Your task to perform on an android device: Clear all items from cart on bestbuy. Search for beats solo 3 on bestbuy, select the first entry, and add it to the cart. Image 0: 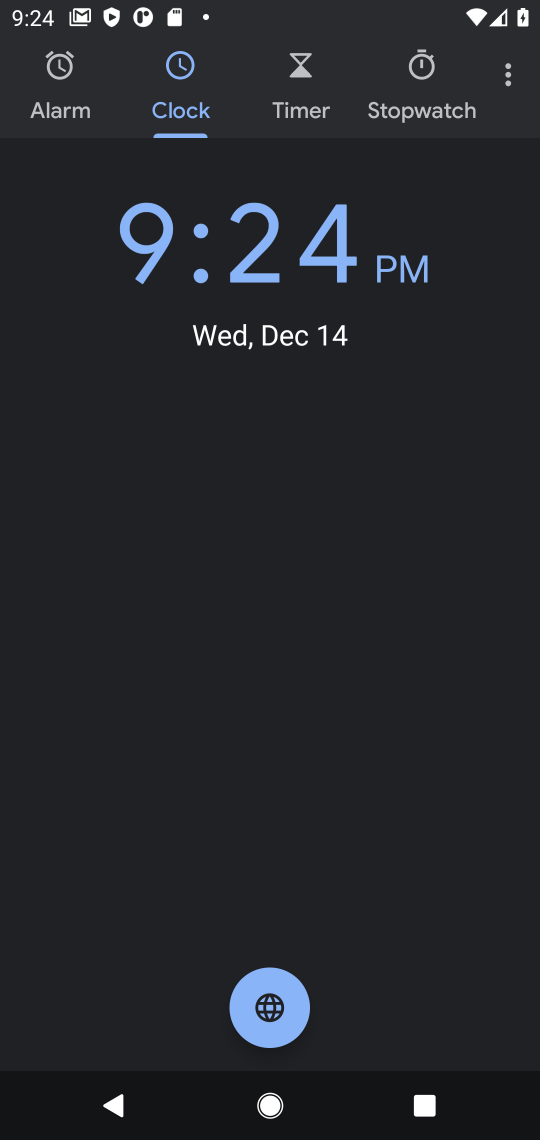
Step 0: press home button
Your task to perform on an android device: Clear all items from cart on bestbuy. Search for beats solo 3 on bestbuy, select the first entry, and add it to the cart. Image 1: 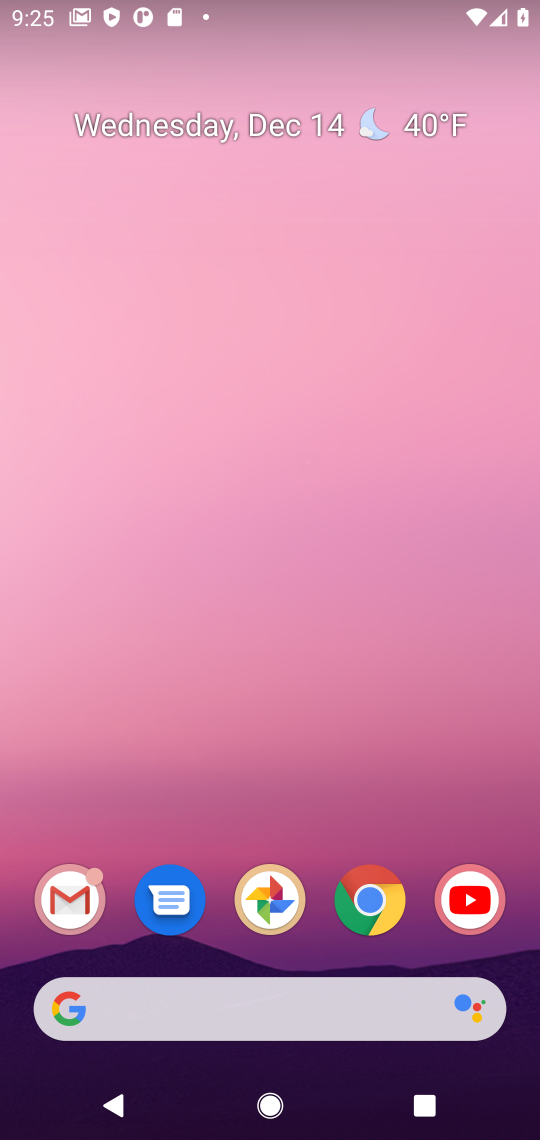
Step 1: click (371, 905)
Your task to perform on an android device: Clear all items from cart on bestbuy. Search for beats solo 3 on bestbuy, select the first entry, and add it to the cart. Image 2: 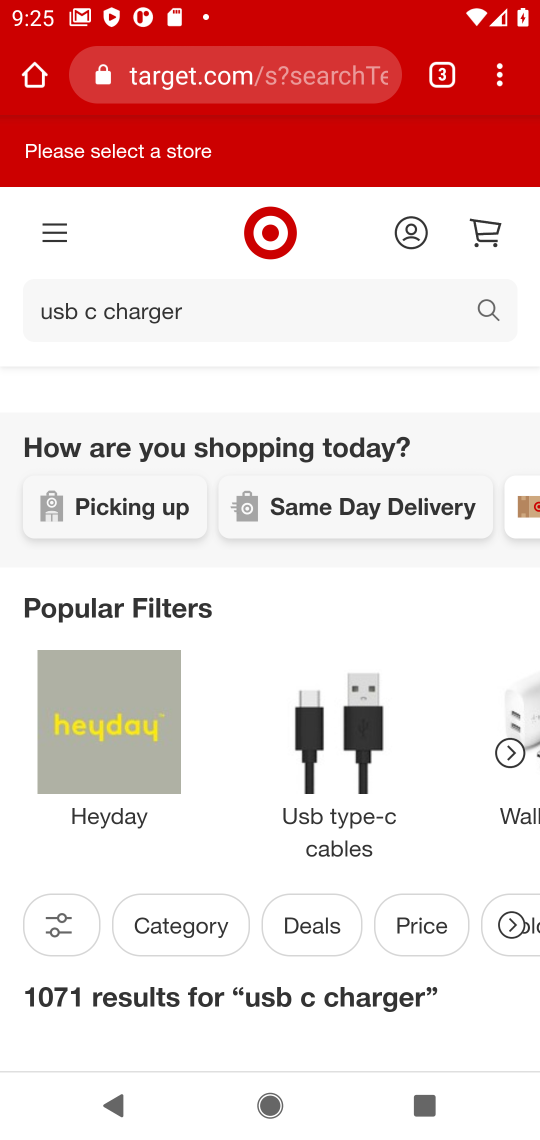
Step 2: click (177, 75)
Your task to perform on an android device: Clear all items from cart on bestbuy. Search for beats solo 3 on bestbuy, select the first entry, and add it to the cart. Image 3: 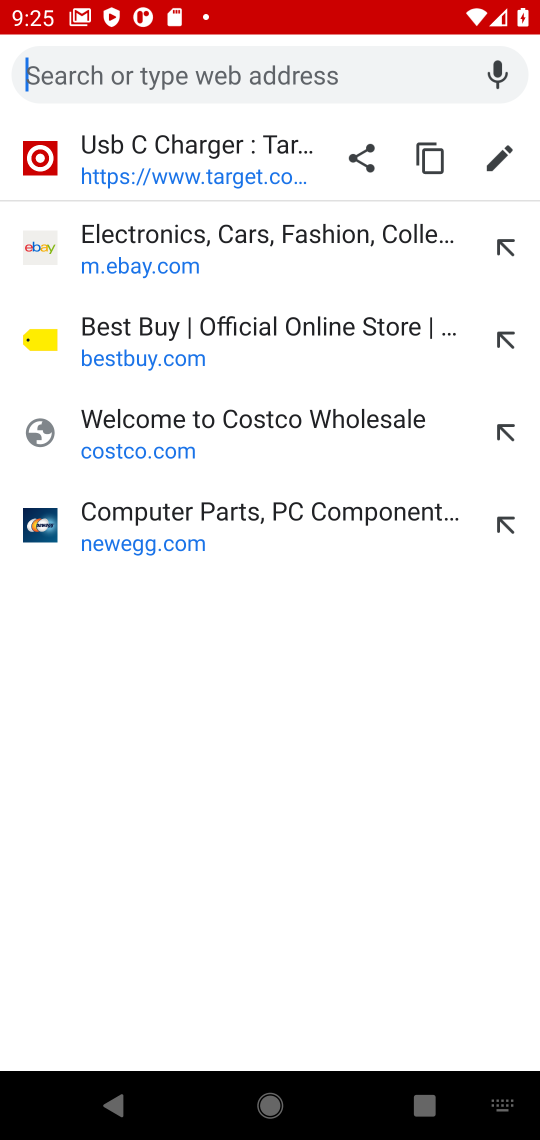
Step 3: click (139, 345)
Your task to perform on an android device: Clear all items from cart on bestbuy. Search for beats solo 3 on bestbuy, select the first entry, and add it to the cart. Image 4: 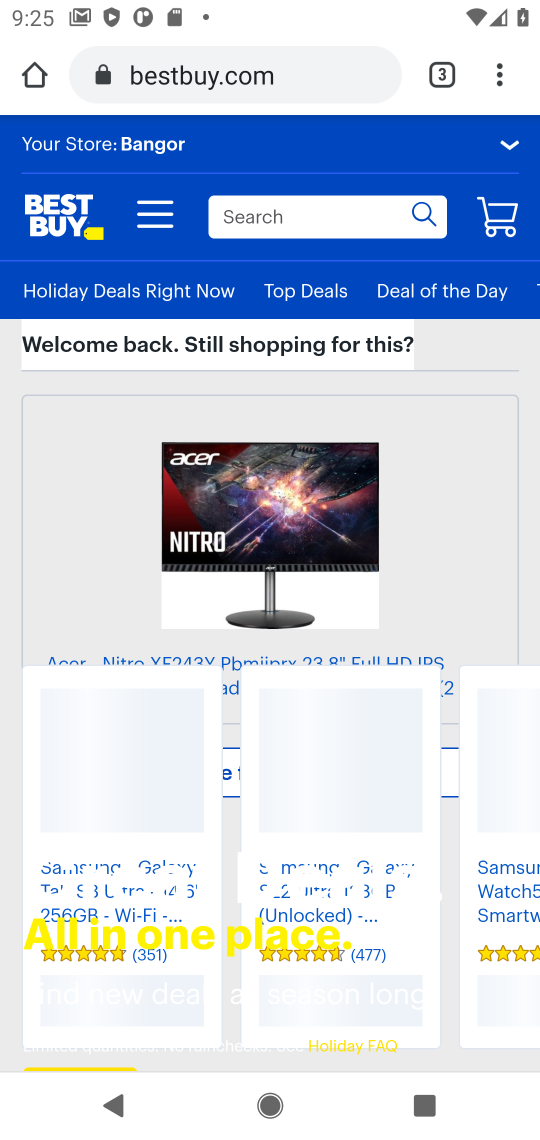
Step 4: click (504, 226)
Your task to perform on an android device: Clear all items from cart on bestbuy. Search for beats solo 3 on bestbuy, select the first entry, and add it to the cart. Image 5: 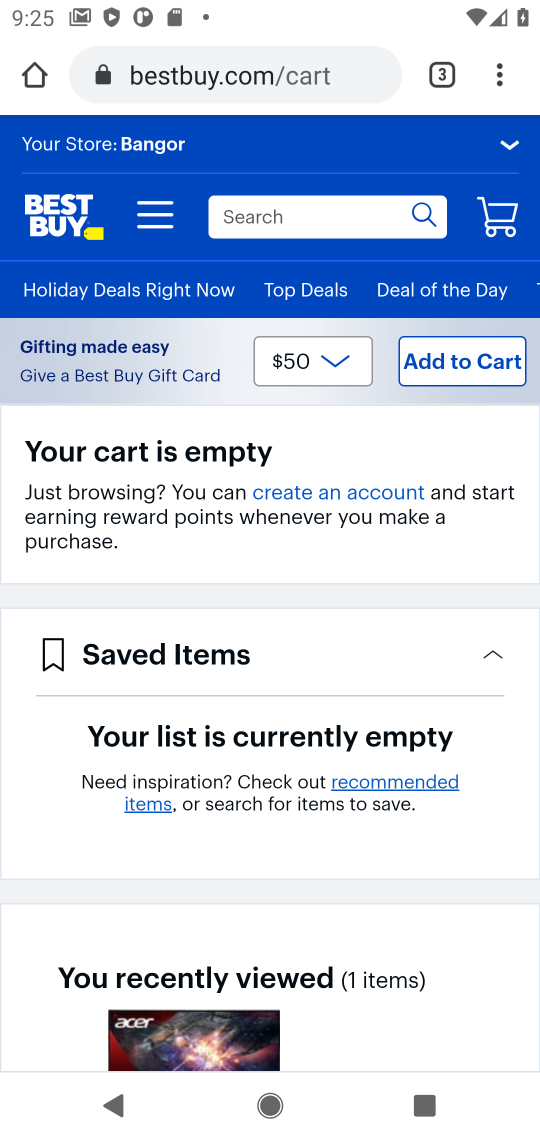
Step 5: click (278, 223)
Your task to perform on an android device: Clear all items from cart on bestbuy. Search for beats solo 3 on bestbuy, select the first entry, and add it to the cart. Image 6: 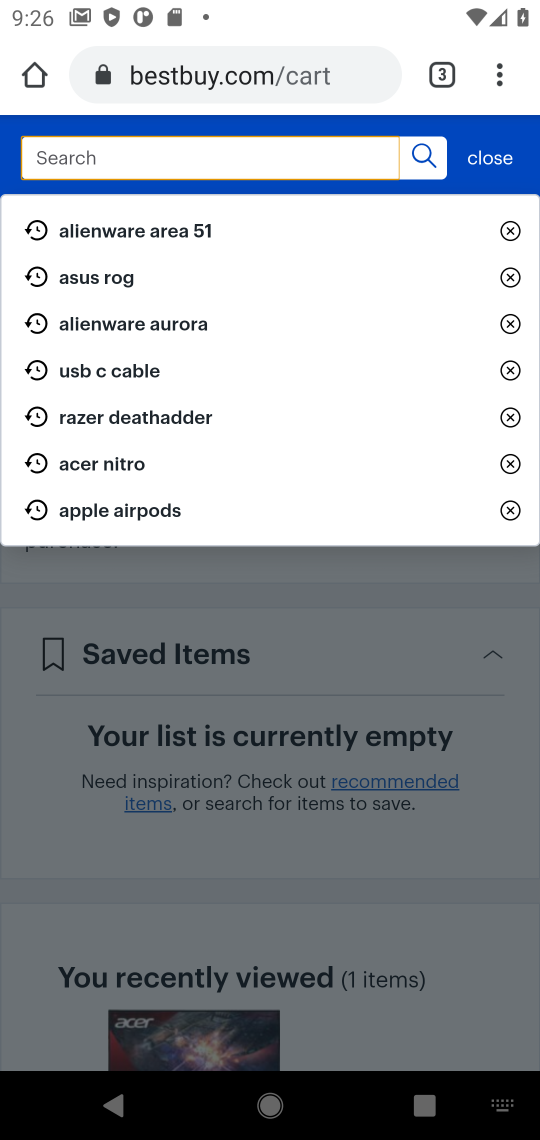
Step 6: type "beats solo 3"
Your task to perform on an android device: Clear all items from cart on bestbuy. Search for beats solo 3 on bestbuy, select the first entry, and add it to the cart. Image 7: 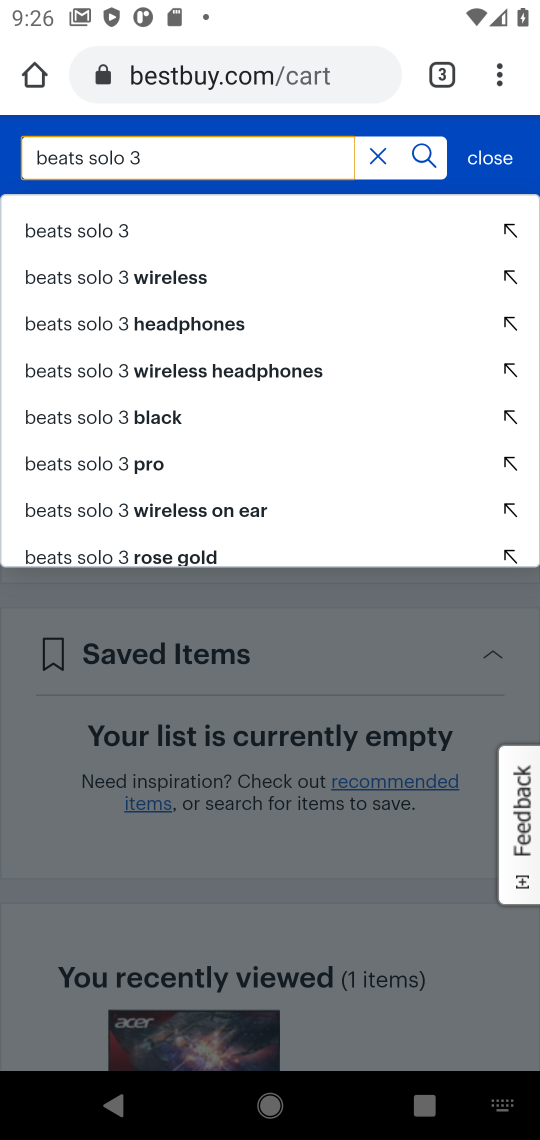
Step 7: click (107, 237)
Your task to perform on an android device: Clear all items from cart on bestbuy. Search for beats solo 3 on bestbuy, select the first entry, and add it to the cart. Image 8: 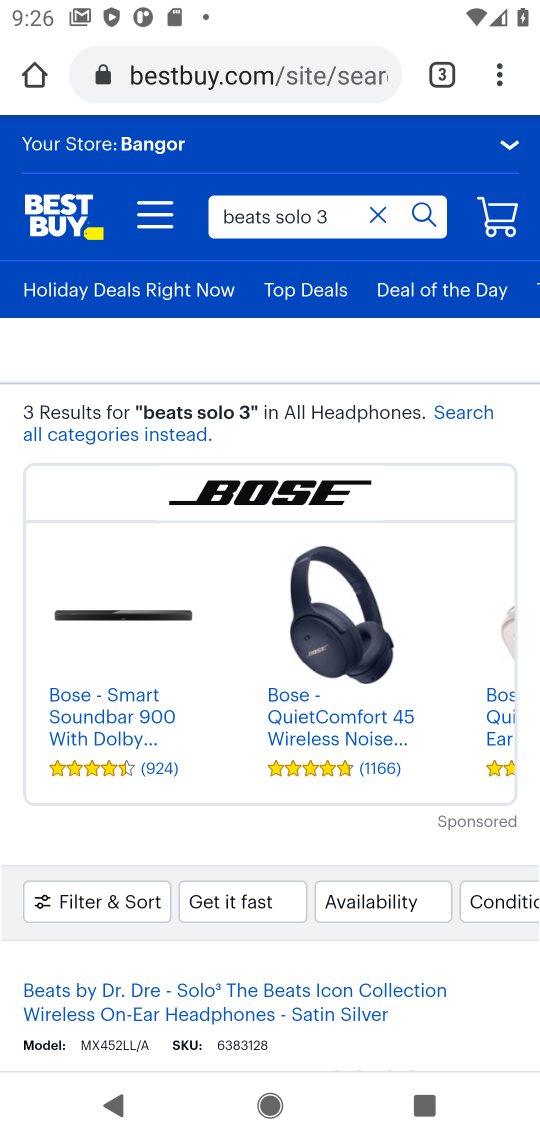
Step 8: drag from (237, 809) to (251, 338)
Your task to perform on an android device: Clear all items from cart on bestbuy. Search for beats solo 3 on bestbuy, select the first entry, and add it to the cart. Image 9: 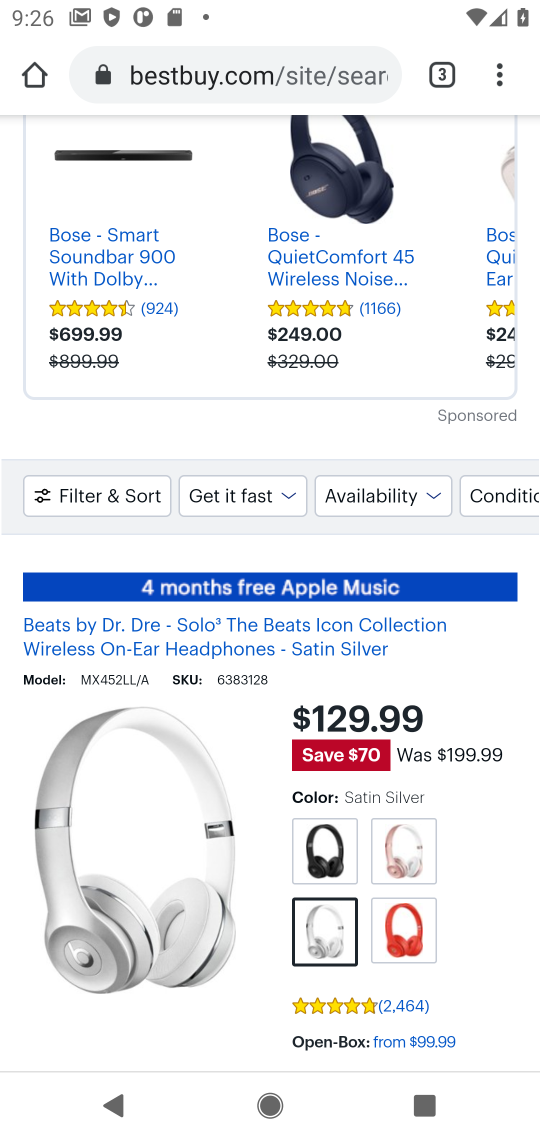
Step 9: drag from (185, 769) to (216, 492)
Your task to perform on an android device: Clear all items from cart on bestbuy. Search for beats solo 3 on bestbuy, select the first entry, and add it to the cart. Image 10: 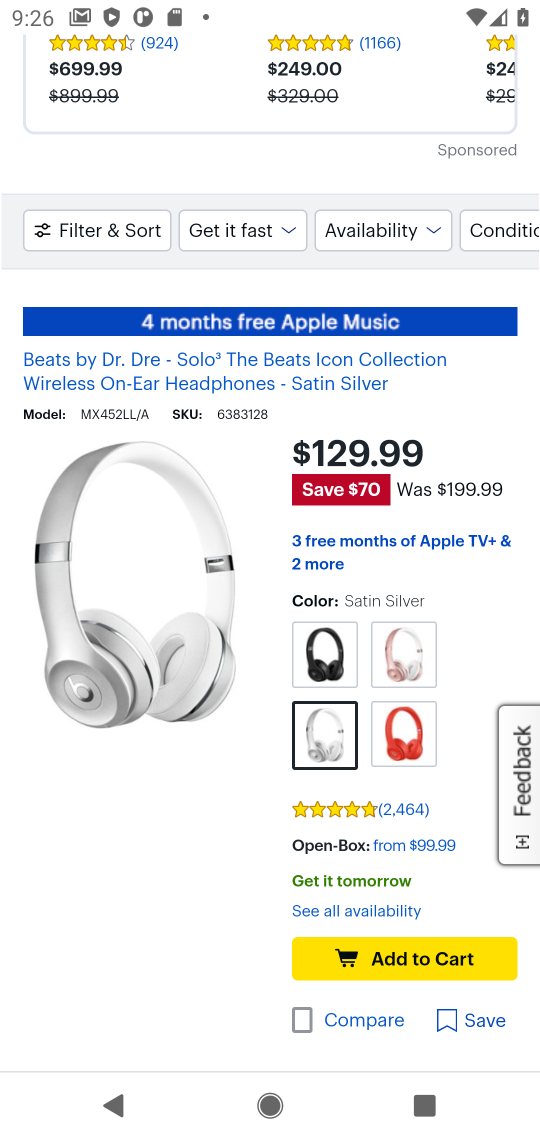
Step 10: click (366, 953)
Your task to perform on an android device: Clear all items from cart on bestbuy. Search for beats solo 3 on bestbuy, select the first entry, and add it to the cart. Image 11: 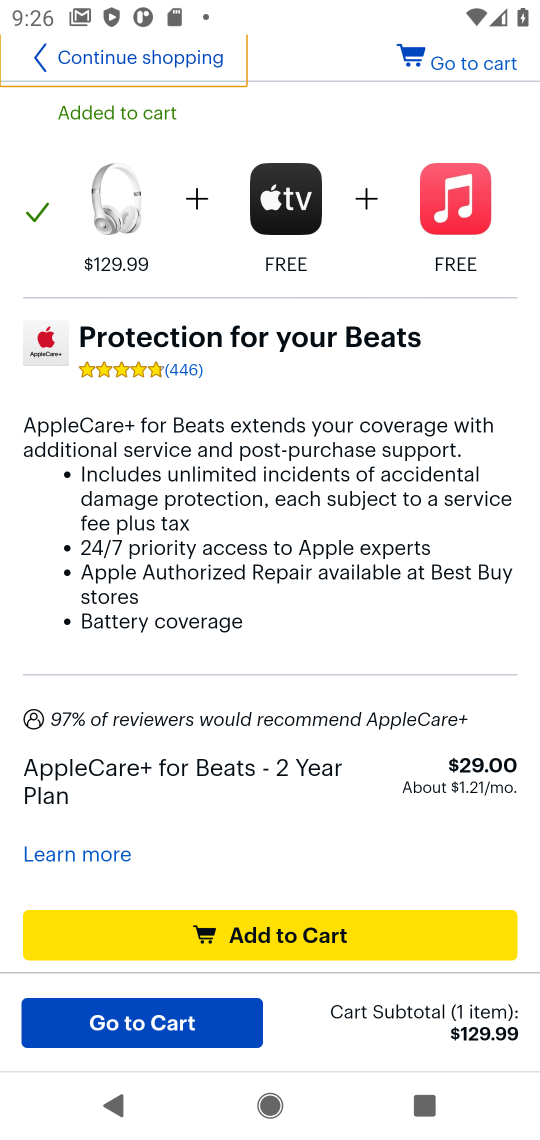
Step 11: task complete